Your task to perform on an android device: Open my contact list Image 0: 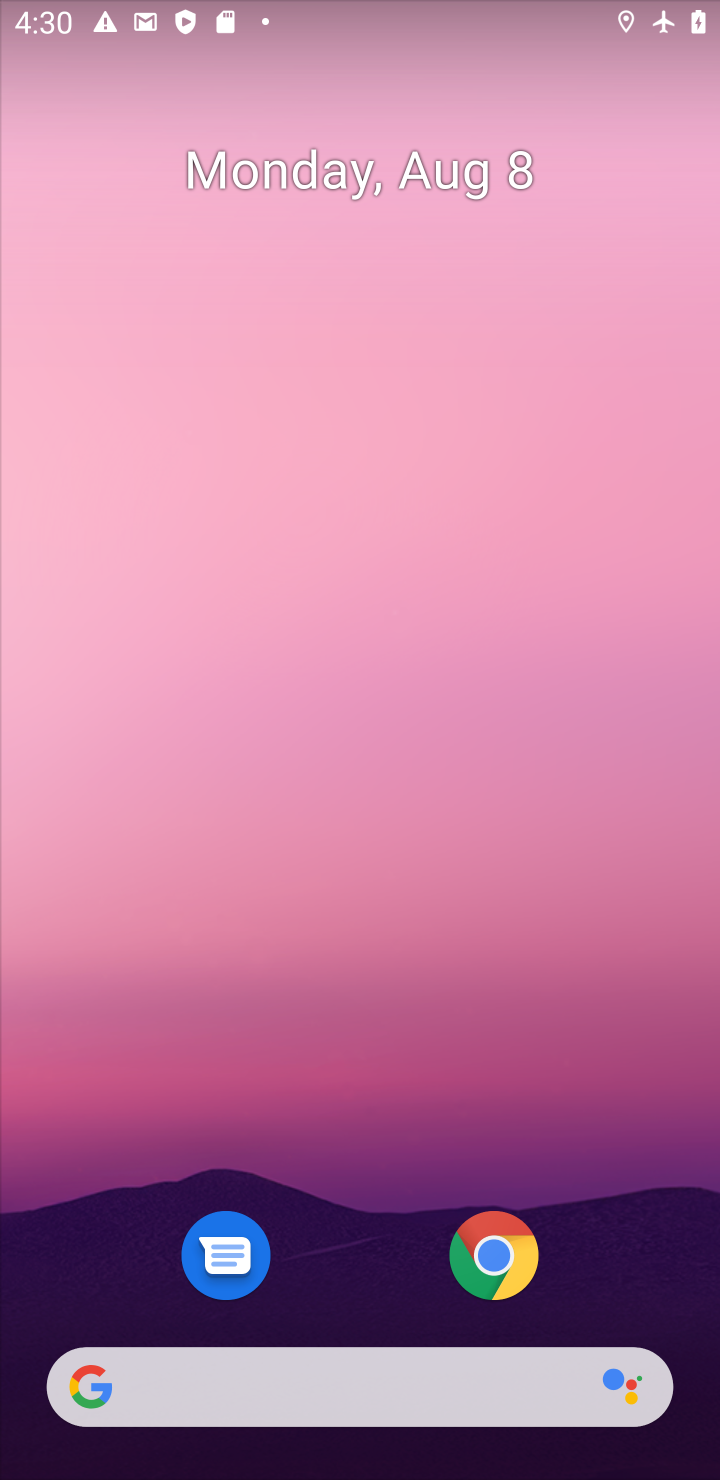
Step 0: drag from (268, 1387) to (457, 330)
Your task to perform on an android device: Open my contact list Image 1: 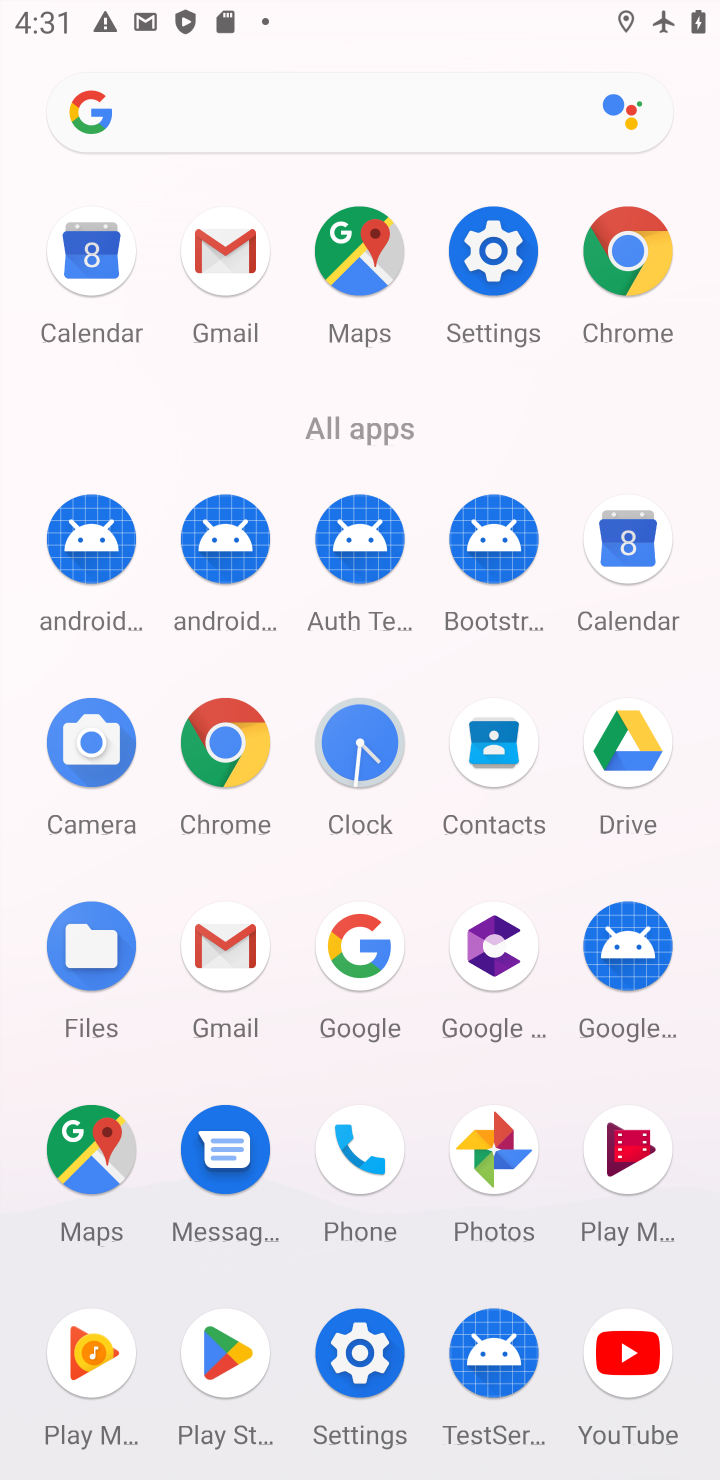
Step 1: click (492, 743)
Your task to perform on an android device: Open my contact list Image 2: 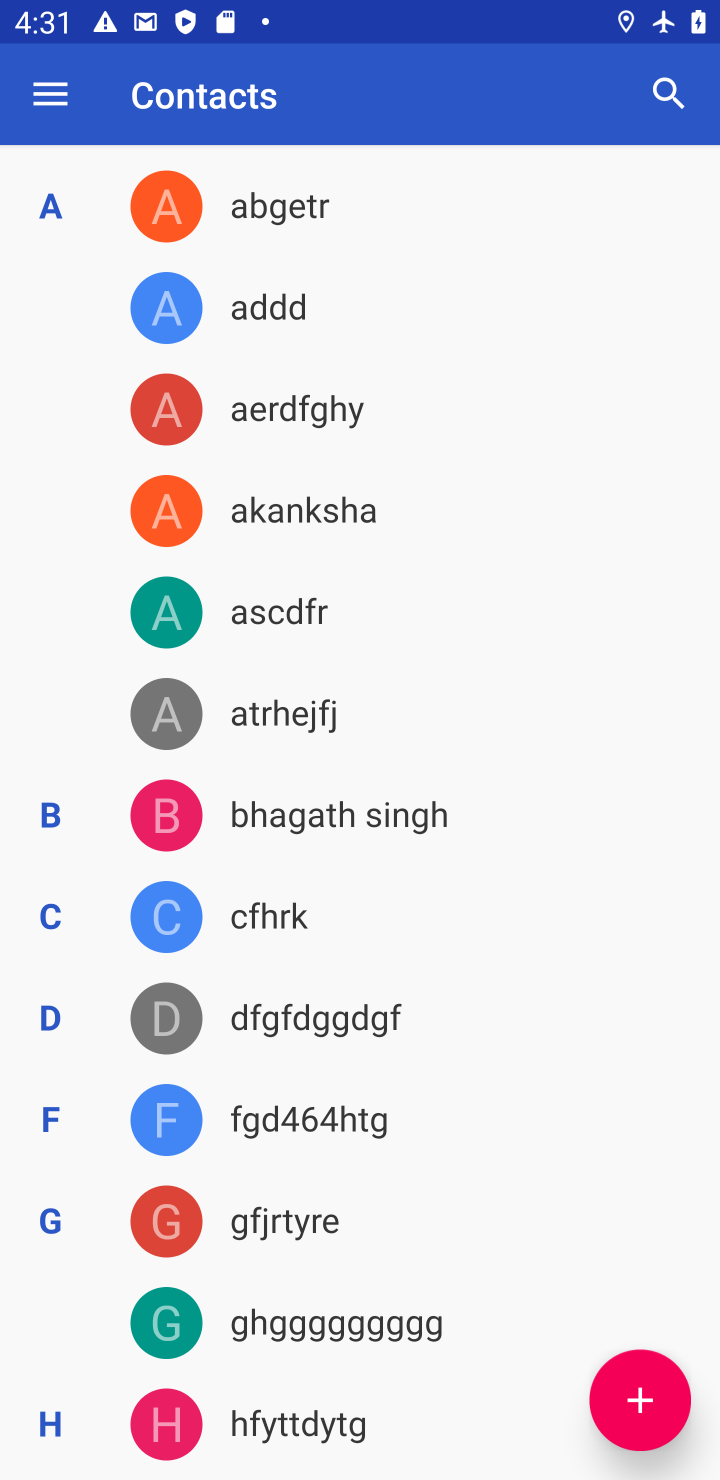
Step 2: task complete